Your task to perform on an android device: Go to Yahoo.com Image 0: 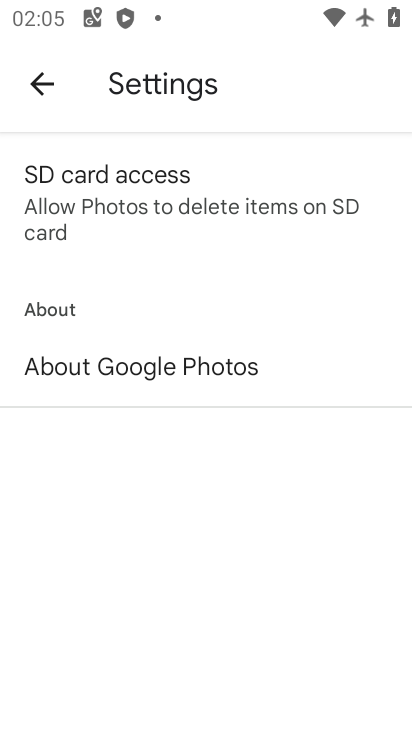
Step 0: press home button
Your task to perform on an android device: Go to Yahoo.com Image 1: 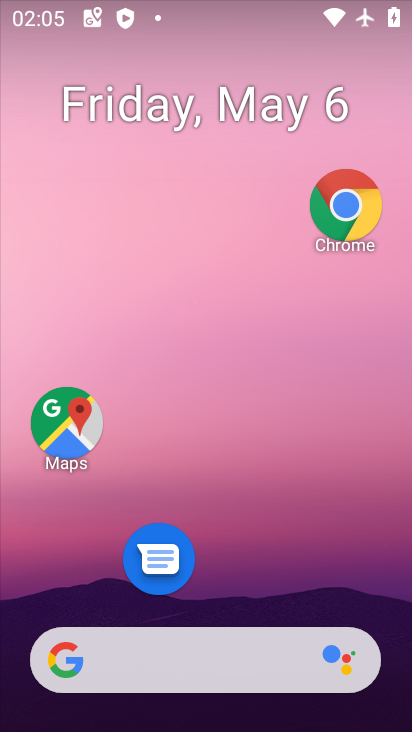
Step 1: click (348, 214)
Your task to perform on an android device: Go to Yahoo.com Image 2: 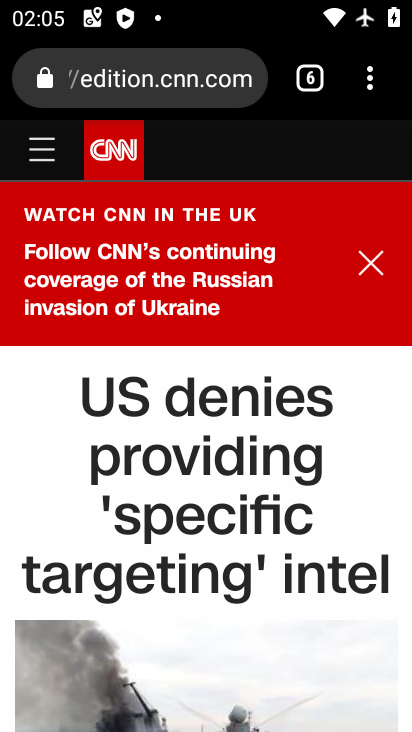
Step 2: drag from (368, 85) to (187, 147)
Your task to perform on an android device: Go to Yahoo.com Image 3: 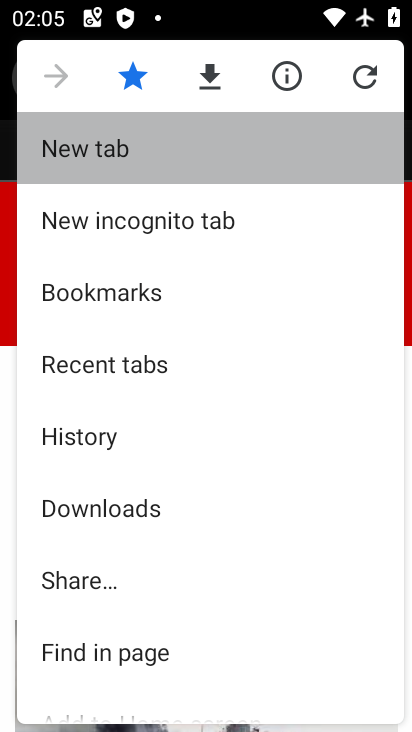
Step 3: click (187, 147)
Your task to perform on an android device: Go to Yahoo.com Image 4: 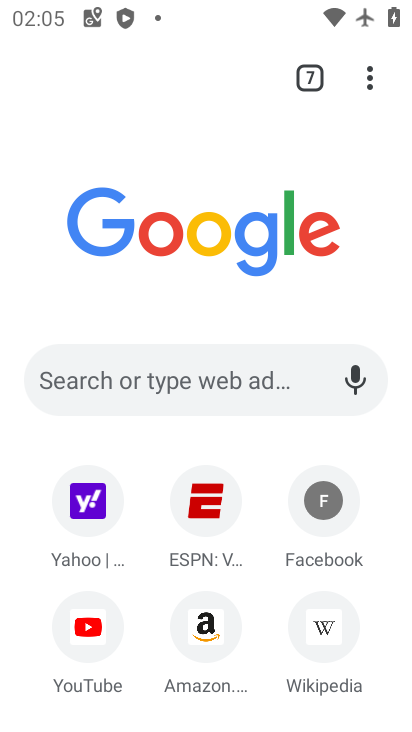
Step 4: click (88, 510)
Your task to perform on an android device: Go to Yahoo.com Image 5: 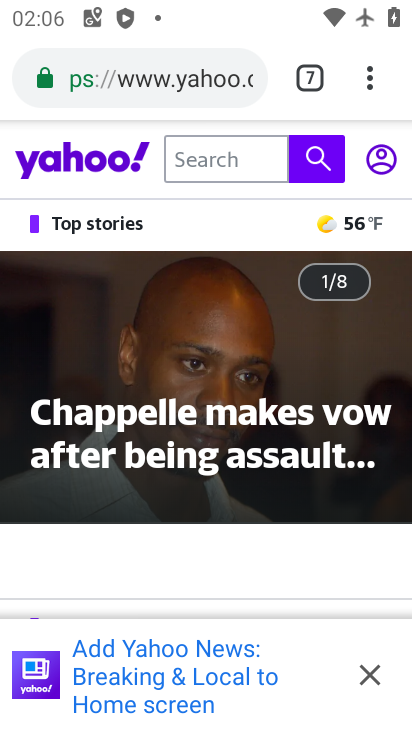
Step 5: task complete